Your task to perform on an android device: set the stopwatch Image 0: 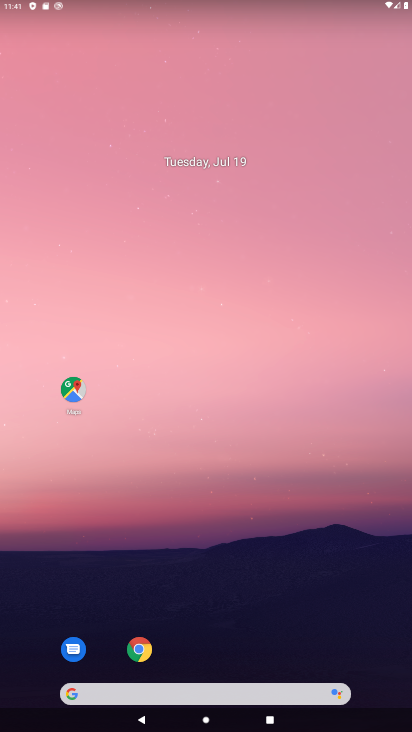
Step 0: drag from (226, 728) to (229, 126)
Your task to perform on an android device: set the stopwatch Image 1: 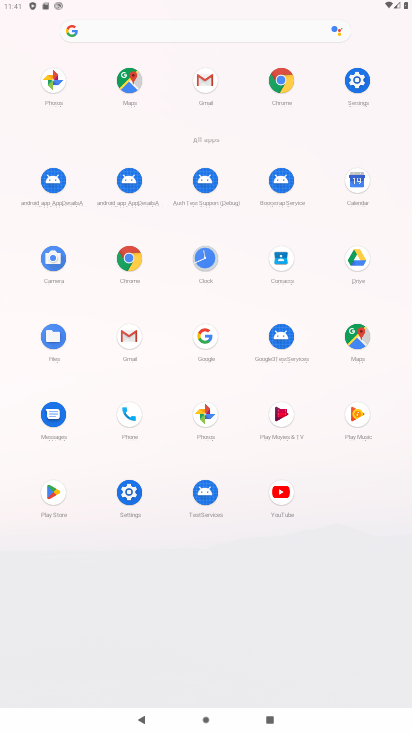
Step 1: click (206, 258)
Your task to perform on an android device: set the stopwatch Image 2: 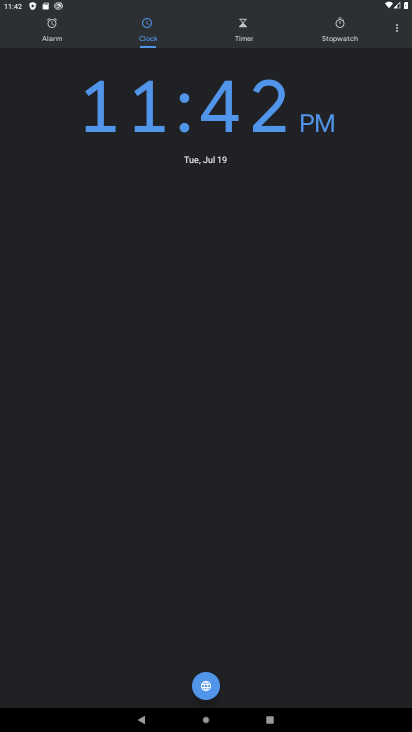
Step 2: click (341, 28)
Your task to perform on an android device: set the stopwatch Image 3: 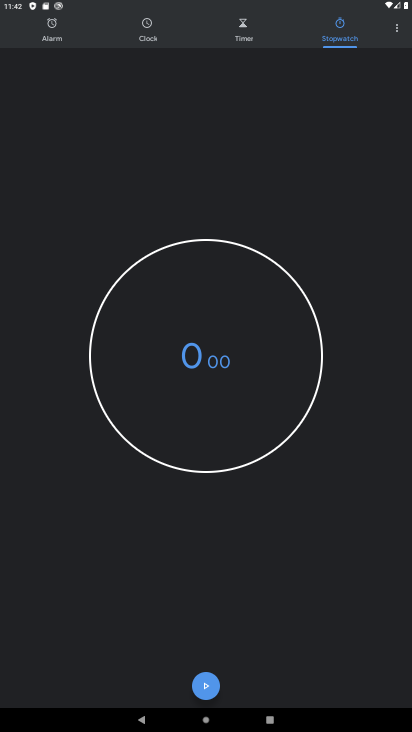
Step 3: click (210, 328)
Your task to perform on an android device: set the stopwatch Image 4: 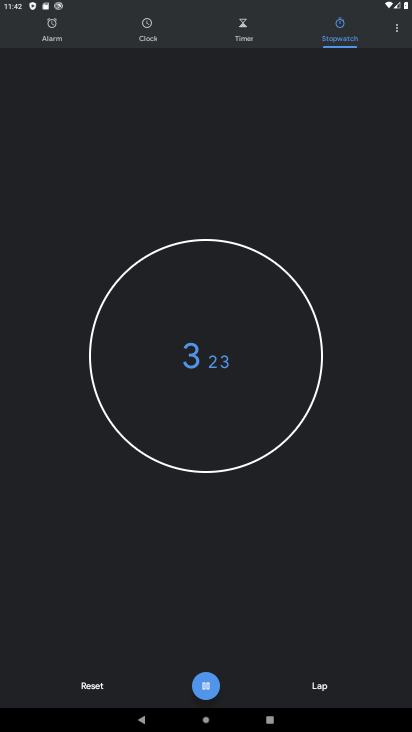
Step 4: type "777"
Your task to perform on an android device: set the stopwatch Image 5: 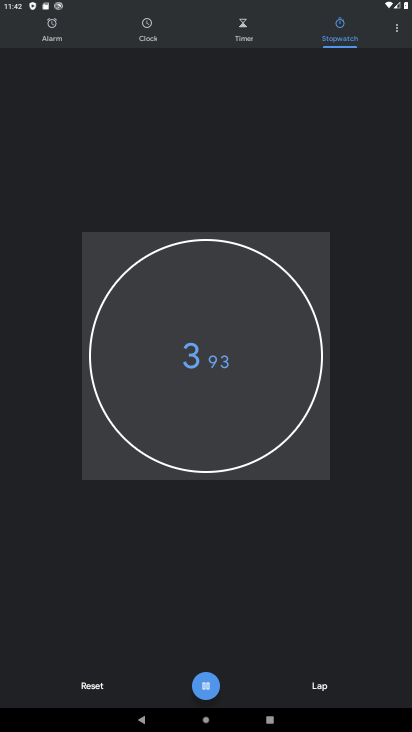
Step 5: type ""
Your task to perform on an android device: set the stopwatch Image 6: 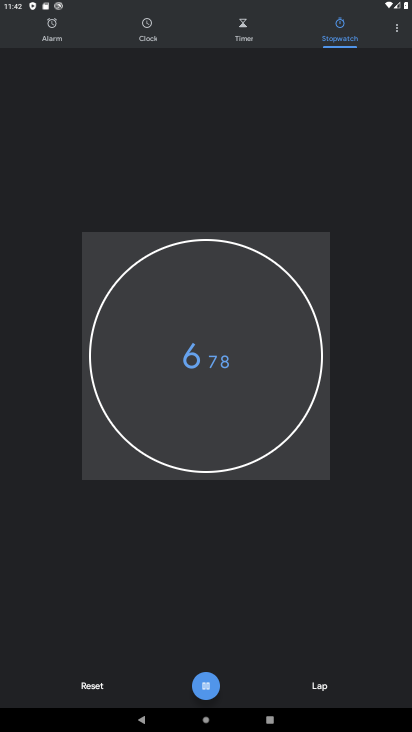
Step 6: task complete